Your task to perform on an android device: turn on the 24-hour format for clock Image 0: 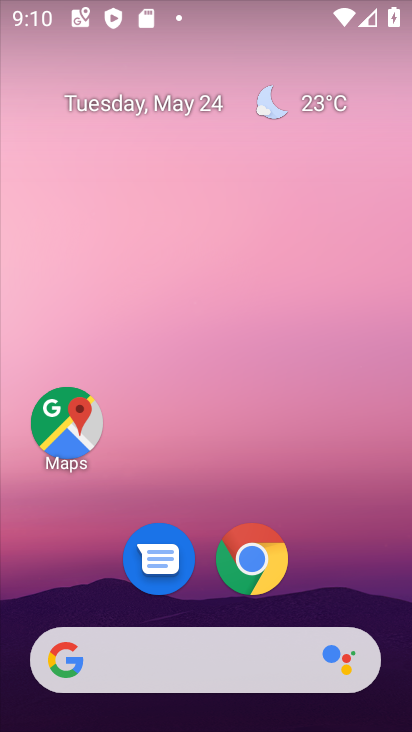
Step 0: drag from (343, 509) to (328, 147)
Your task to perform on an android device: turn on the 24-hour format for clock Image 1: 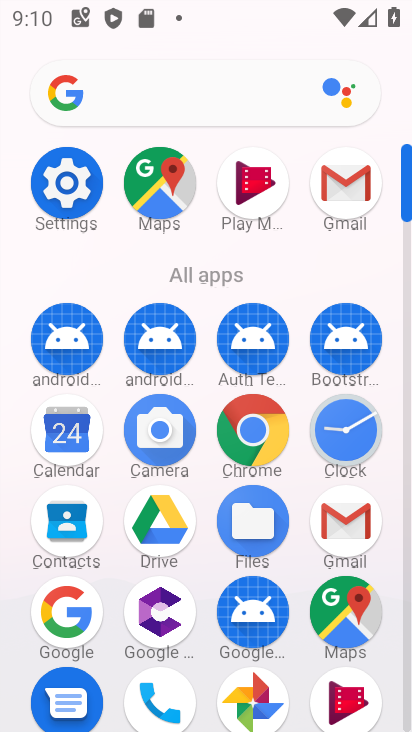
Step 1: click (346, 430)
Your task to perform on an android device: turn on the 24-hour format for clock Image 2: 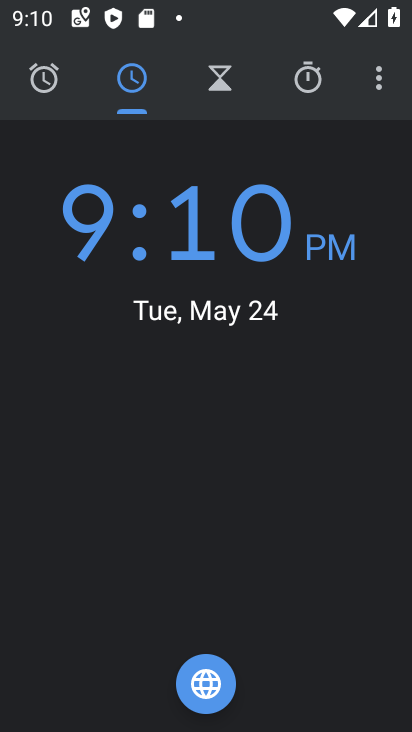
Step 2: click (382, 74)
Your task to perform on an android device: turn on the 24-hour format for clock Image 3: 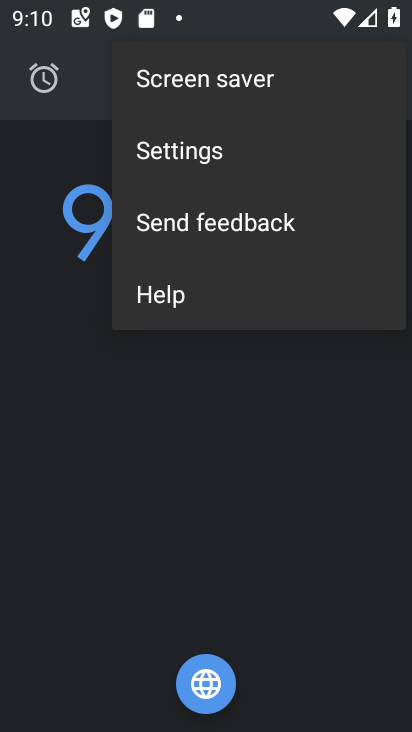
Step 3: click (232, 168)
Your task to perform on an android device: turn on the 24-hour format for clock Image 4: 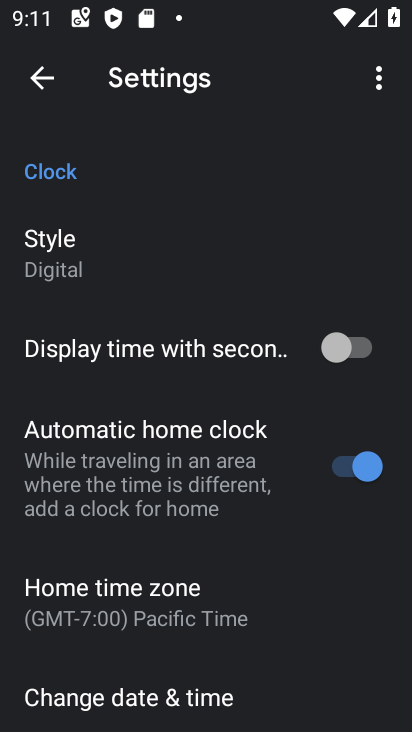
Step 4: drag from (251, 655) to (285, 272)
Your task to perform on an android device: turn on the 24-hour format for clock Image 5: 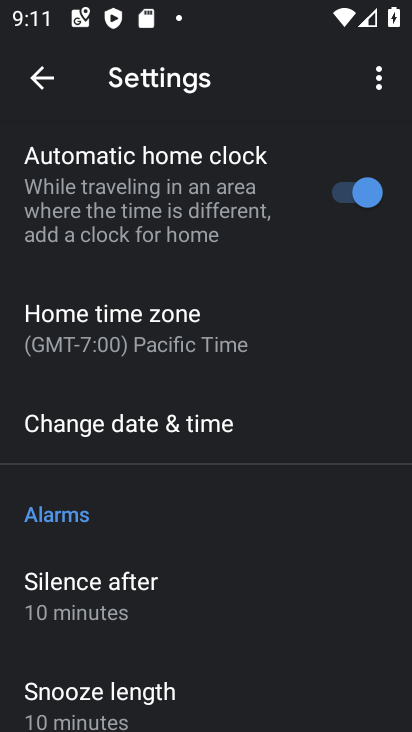
Step 5: click (203, 431)
Your task to perform on an android device: turn on the 24-hour format for clock Image 6: 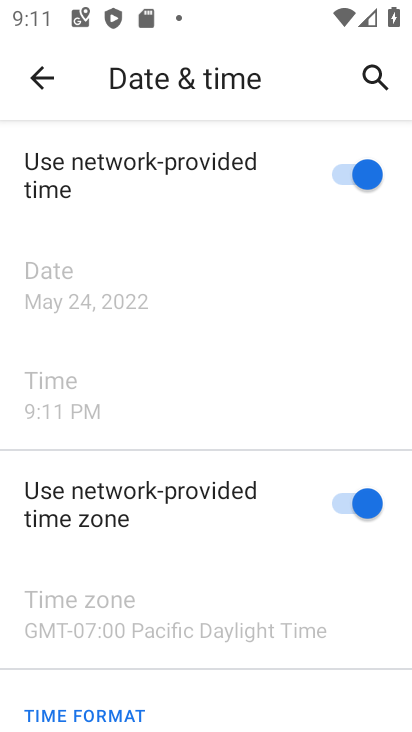
Step 6: drag from (210, 625) to (226, 254)
Your task to perform on an android device: turn on the 24-hour format for clock Image 7: 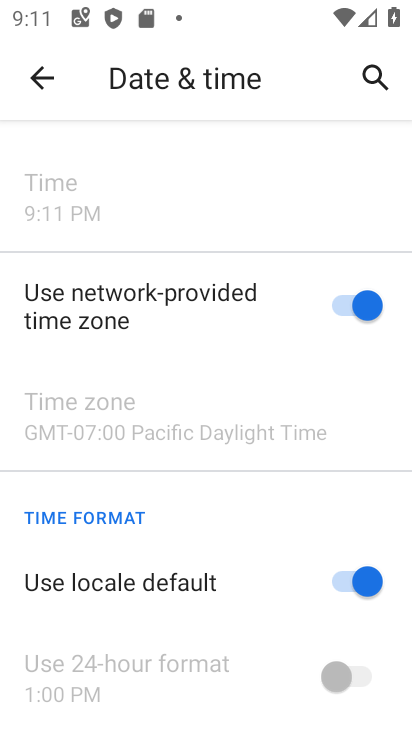
Step 7: click (358, 580)
Your task to perform on an android device: turn on the 24-hour format for clock Image 8: 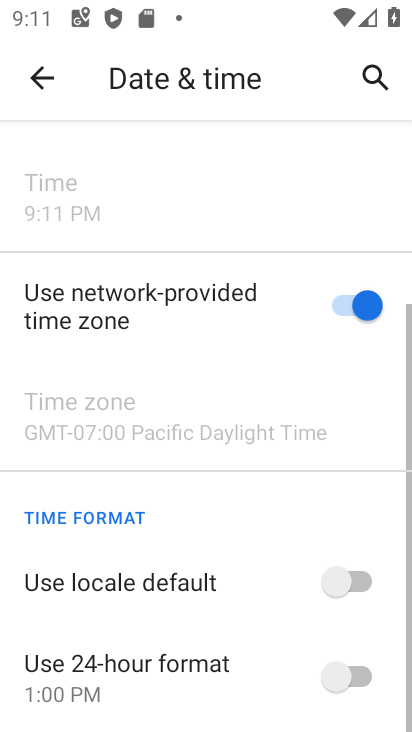
Step 8: click (346, 671)
Your task to perform on an android device: turn on the 24-hour format for clock Image 9: 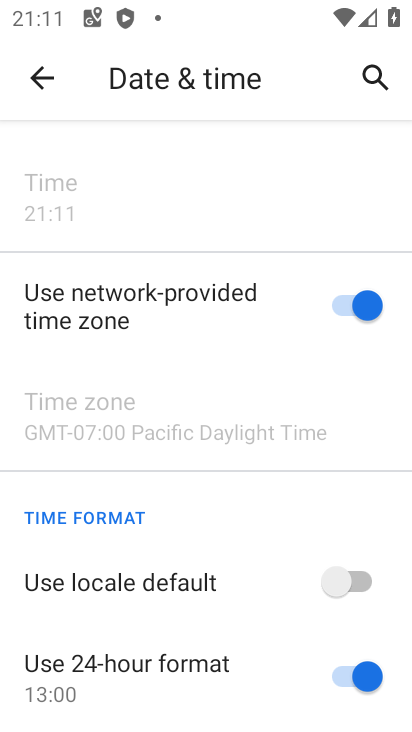
Step 9: task complete